Your task to perform on an android device: Check the news Image 0: 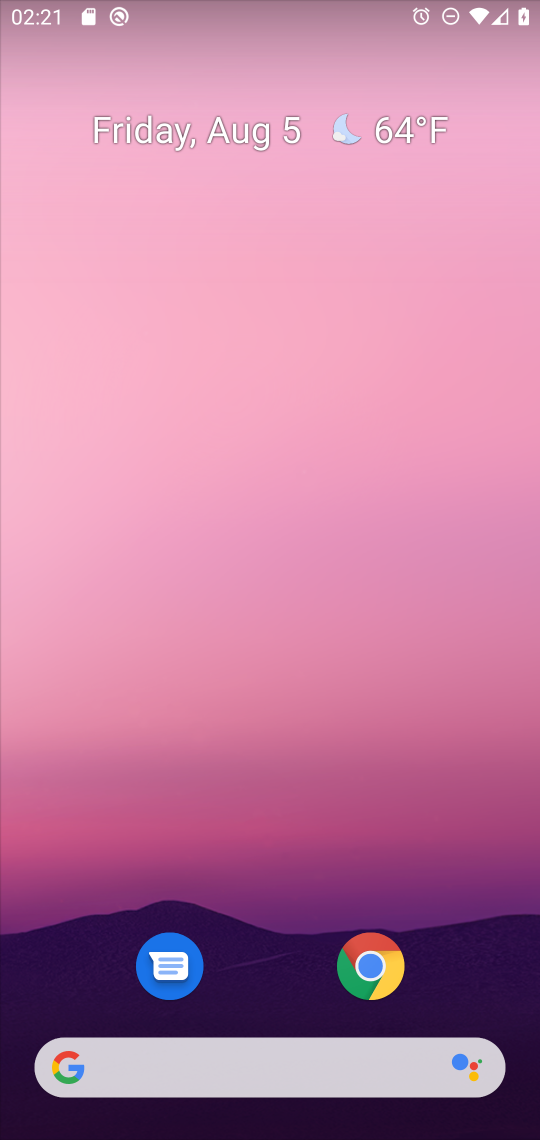
Step 0: drag from (266, 977) to (391, 91)
Your task to perform on an android device: Check the news Image 1: 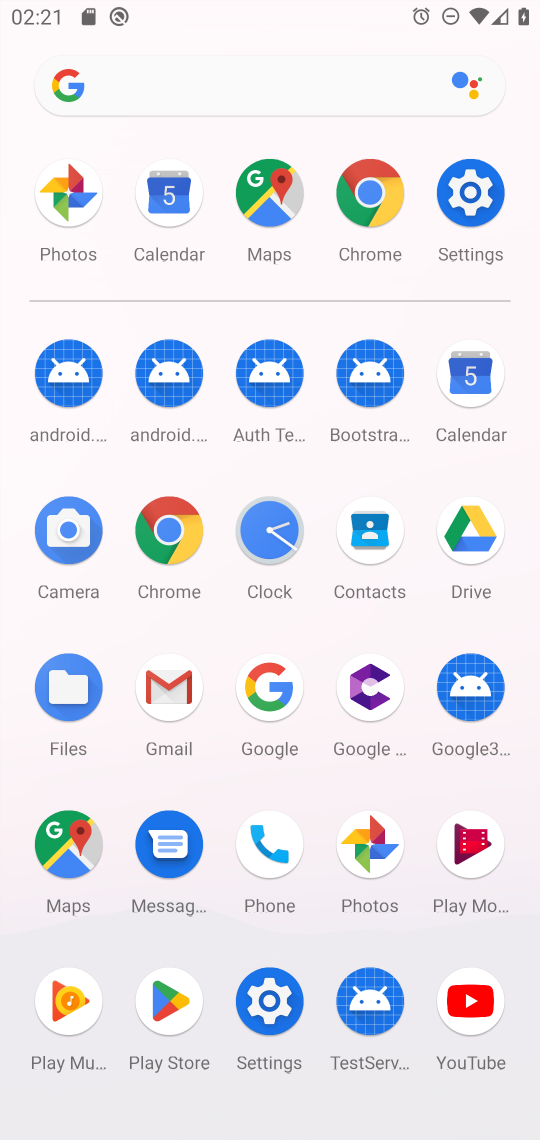
Step 1: press home button
Your task to perform on an android device: Check the news Image 2: 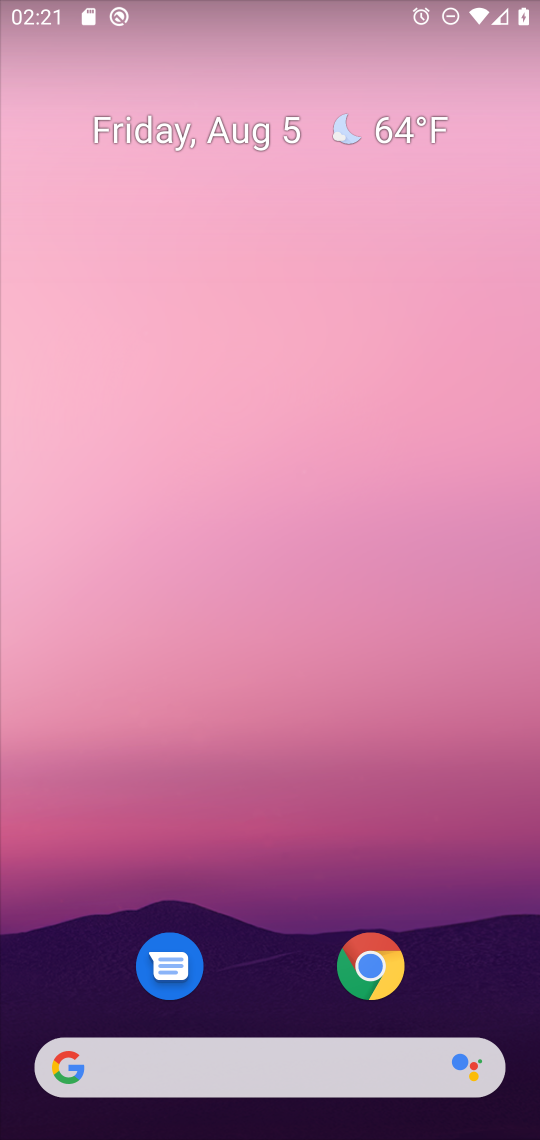
Step 2: click (243, 1074)
Your task to perform on an android device: Check the news Image 3: 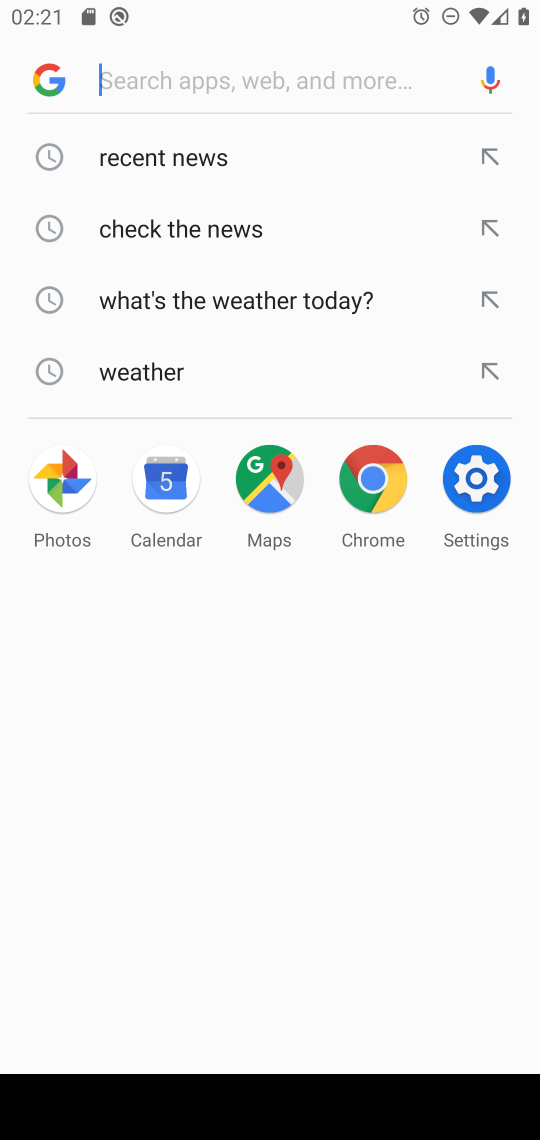
Step 3: click (228, 223)
Your task to perform on an android device: Check the news Image 4: 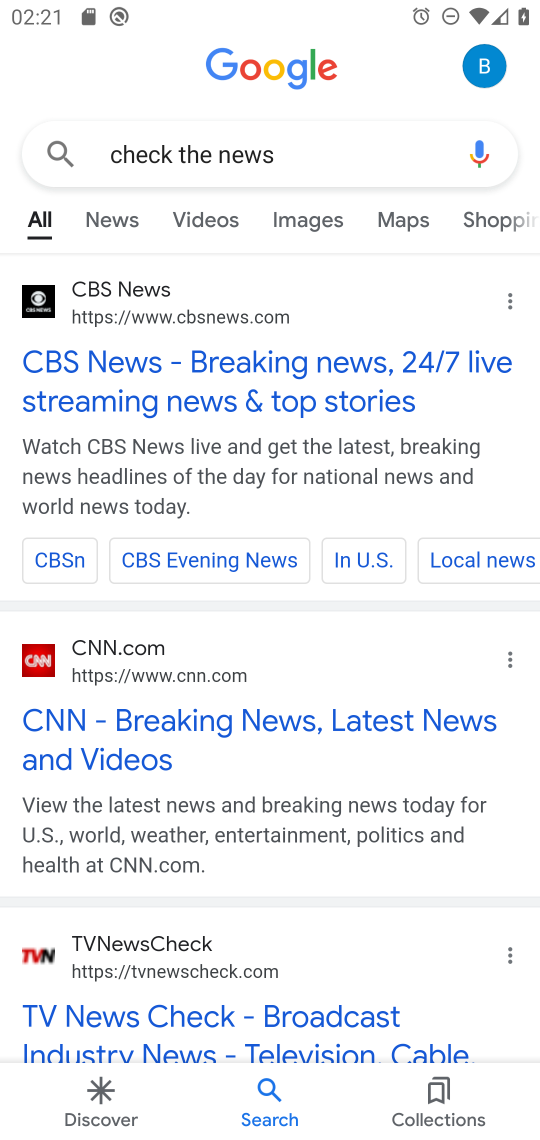
Step 4: click (117, 219)
Your task to perform on an android device: Check the news Image 5: 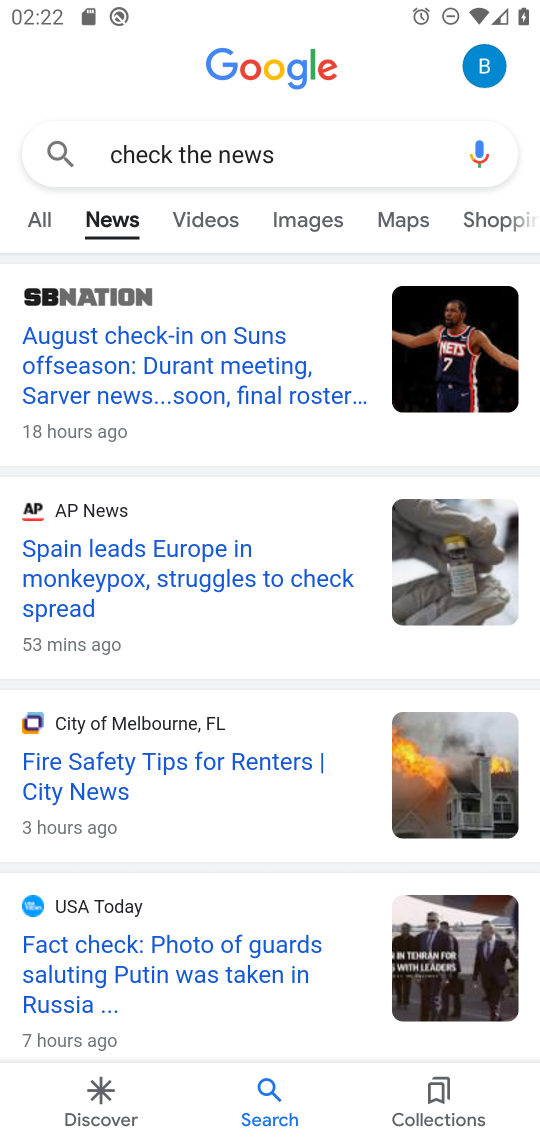
Step 5: task complete